Your task to perform on an android device: turn on the 24-hour format for clock Image 0: 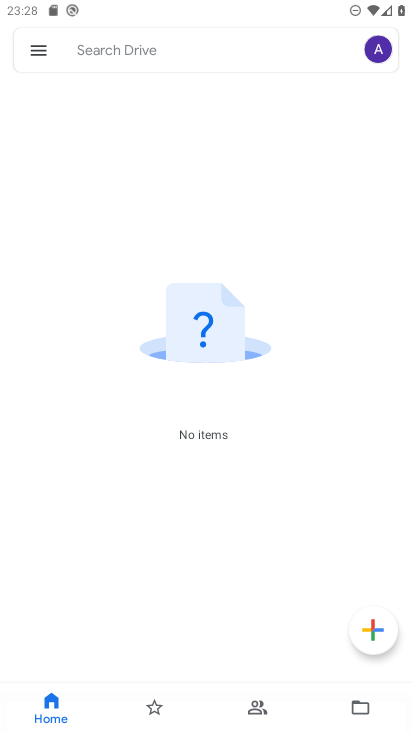
Step 0: press home button
Your task to perform on an android device: turn on the 24-hour format for clock Image 1: 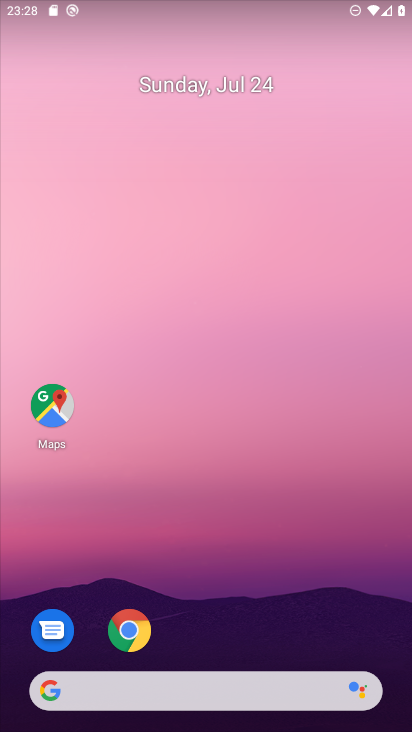
Step 1: drag from (281, 619) to (230, 16)
Your task to perform on an android device: turn on the 24-hour format for clock Image 2: 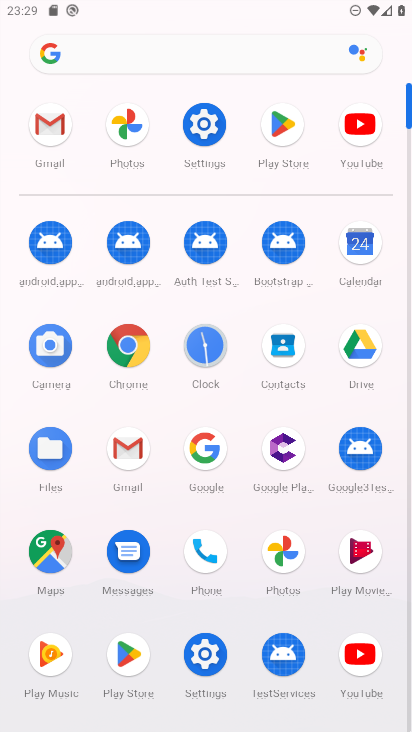
Step 2: click (194, 345)
Your task to perform on an android device: turn on the 24-hour format for clock Image 3: 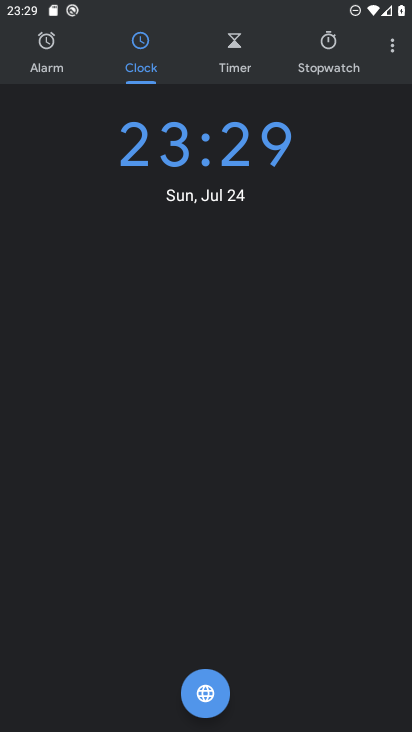
Step 3: click (386, 42)
Your task to perform on an android device: turn on the 24-hour format for clock Image 4: 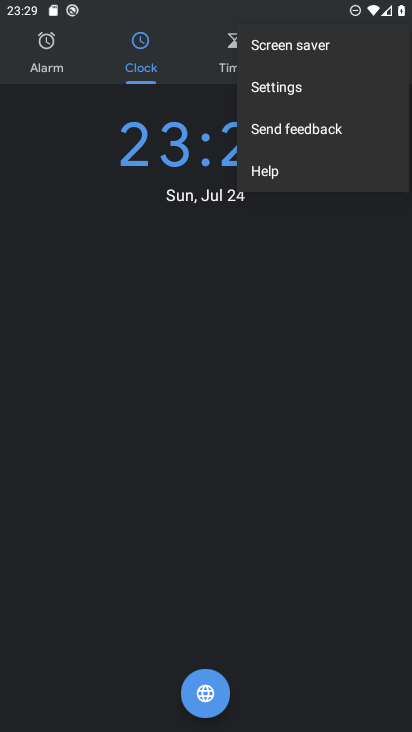
Step 4: click (280, 87)
Your task to perform on an android device: turn on the 24-hour format for clock Image 5: 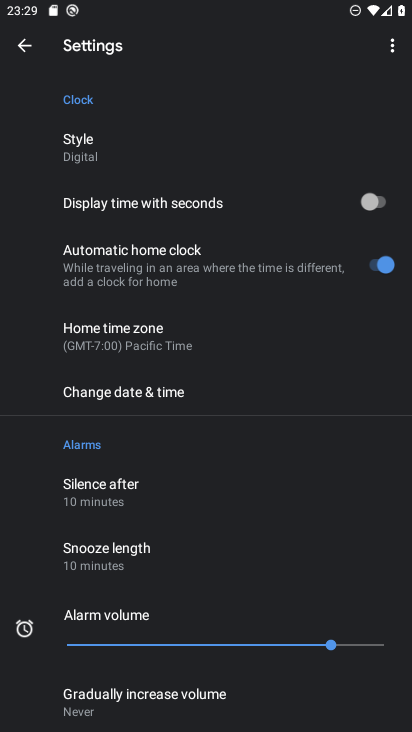
Step 5: click (148, 385)
Your task to perform on an android device: turn on the 24-hour format for clock Image 6: 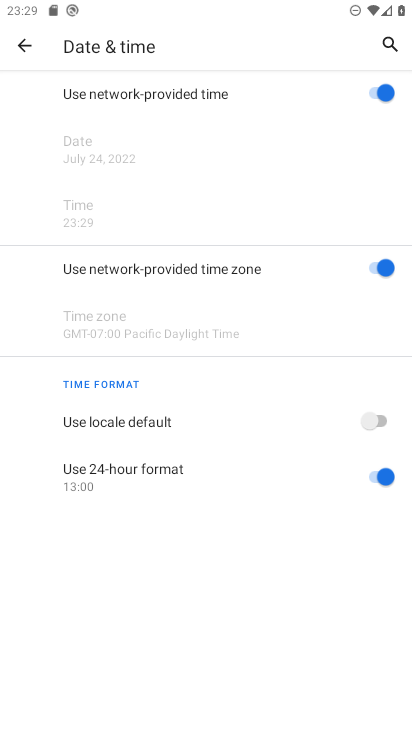
Step 6: task complete